Your task to perform on an android device: Clear the shopping cart on target. Add "razer kraken" to the cart on target, then select checkout. Image 0: 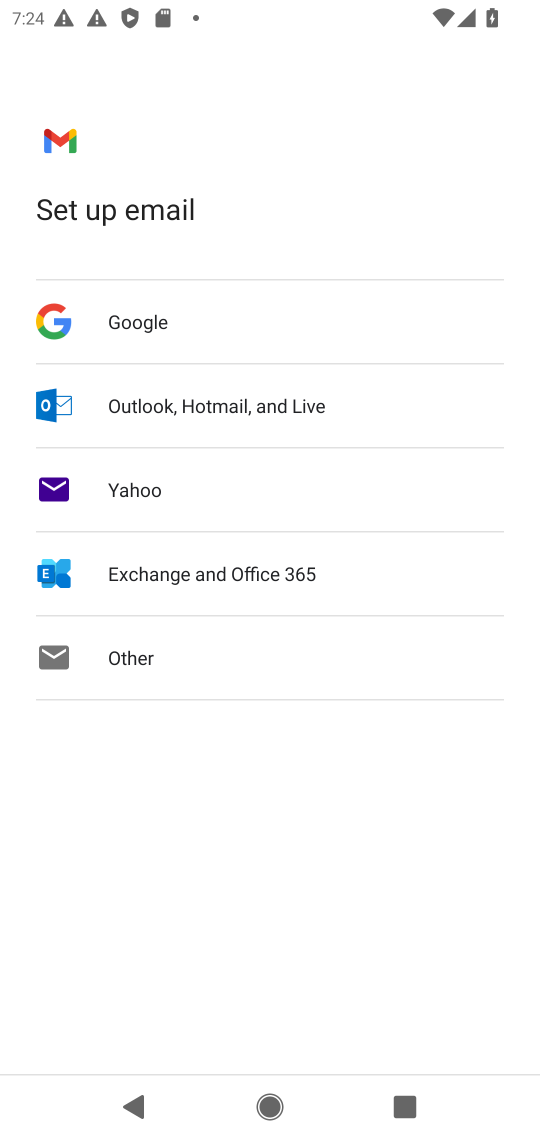
Step 0: press home button
Your task to perform on an android device: Clear the shopping cart on target. Add "razer kraken" to the cart on target, then select checkout. Image 1: 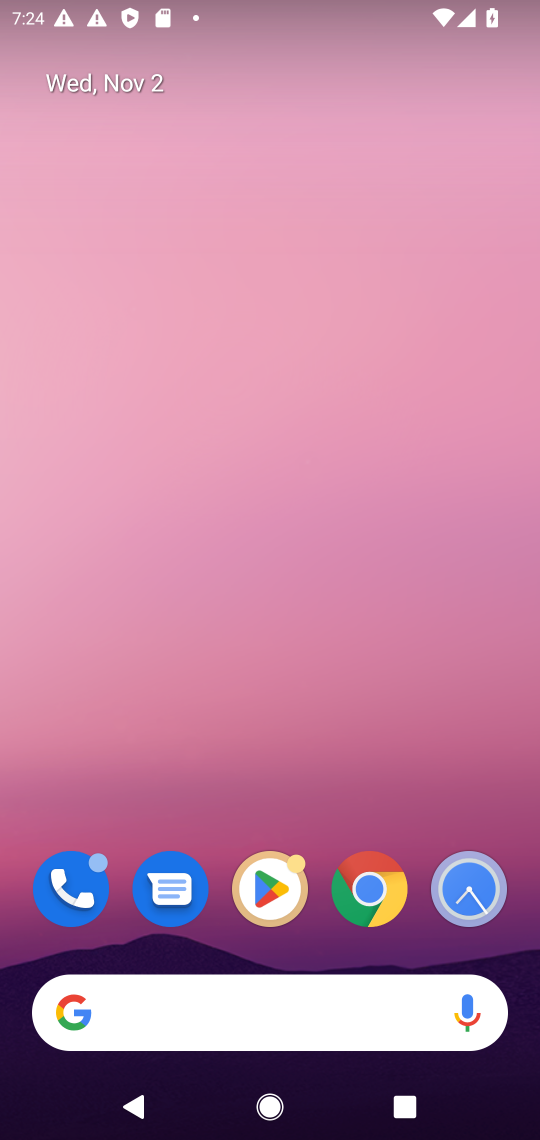
Step 1: drag from (307, 821) to (316, 1)
Your task to perform on an android device: Clear the shopping cart on target. Add "razer kraken" to the cart on target, then select checkout. Image 2: 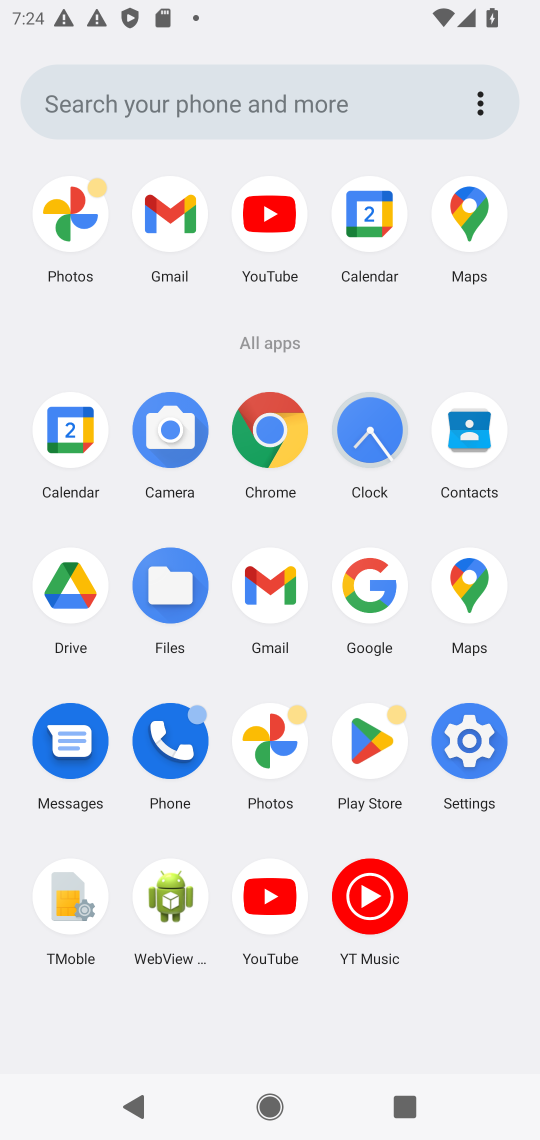
Step 2: click (266, 431)
Your task to perform on an android device: Clear the shopping cart on target. Add "razer kraken" to the cart on target, then select checkout. Image 3: 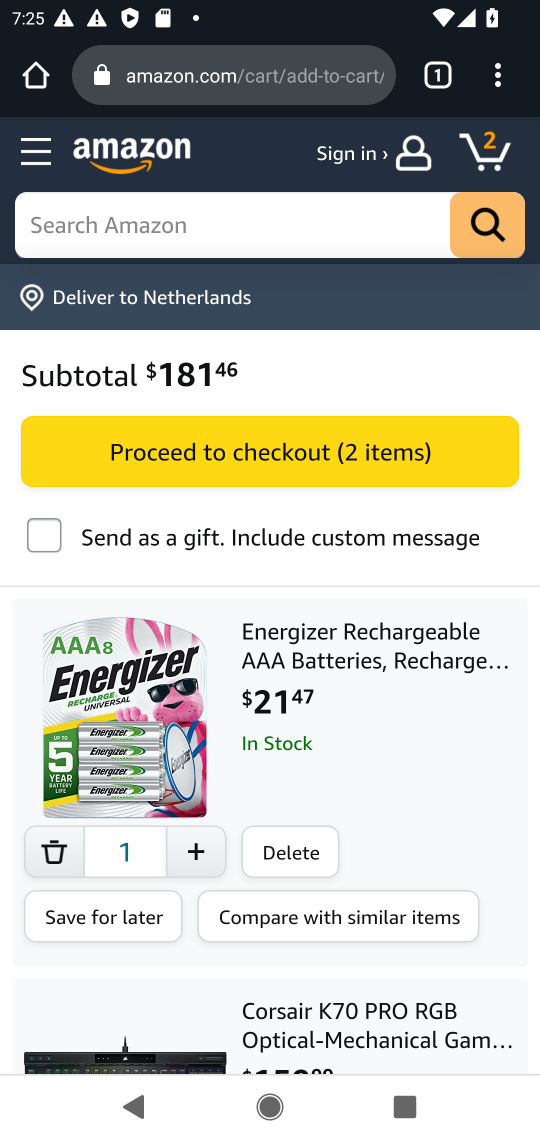
Step 3: click (171, 59)
Your task to perform on an android device: Clear the shopping cart on target. Add "razer kraken" to the cart on target, then select checkout. Image 4: 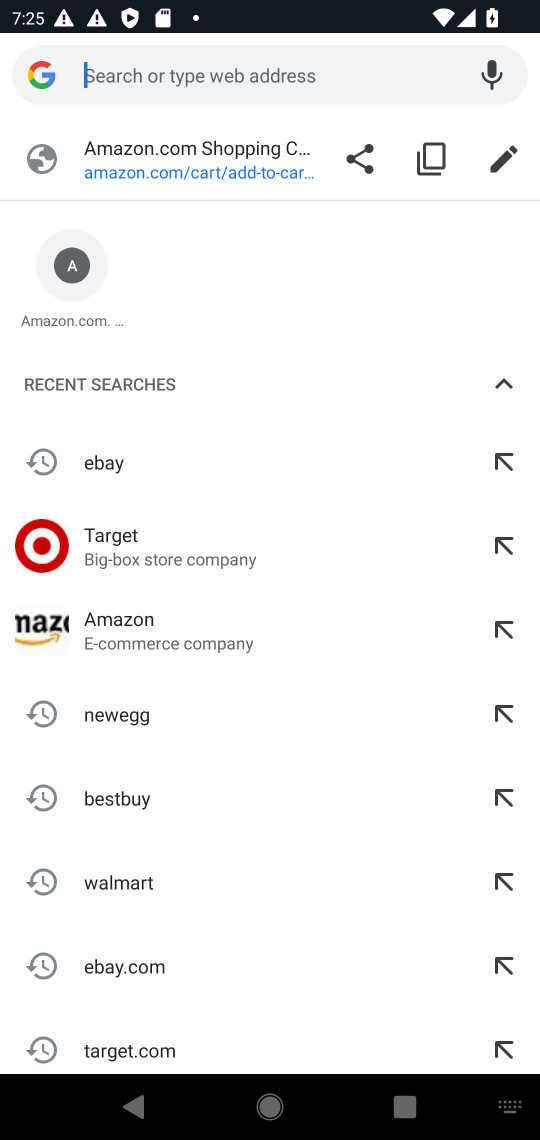
Step 4: type "target"
Your task to perform on an android device: Clear the shopping cart on target. Add "razer kraken" to the cart on target, then select checkout. Image 5: 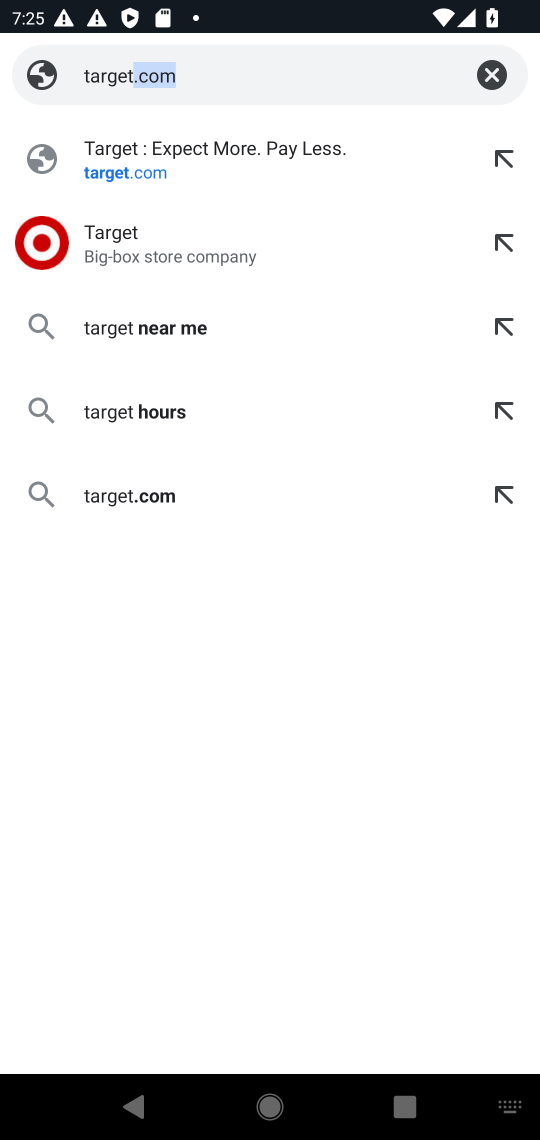
Step 5: click (206, 170)
Your task to perform on an android device: Clear the shopping cart on target. Add "razer kraken" to the cart on target, then select checkout. Image 6: 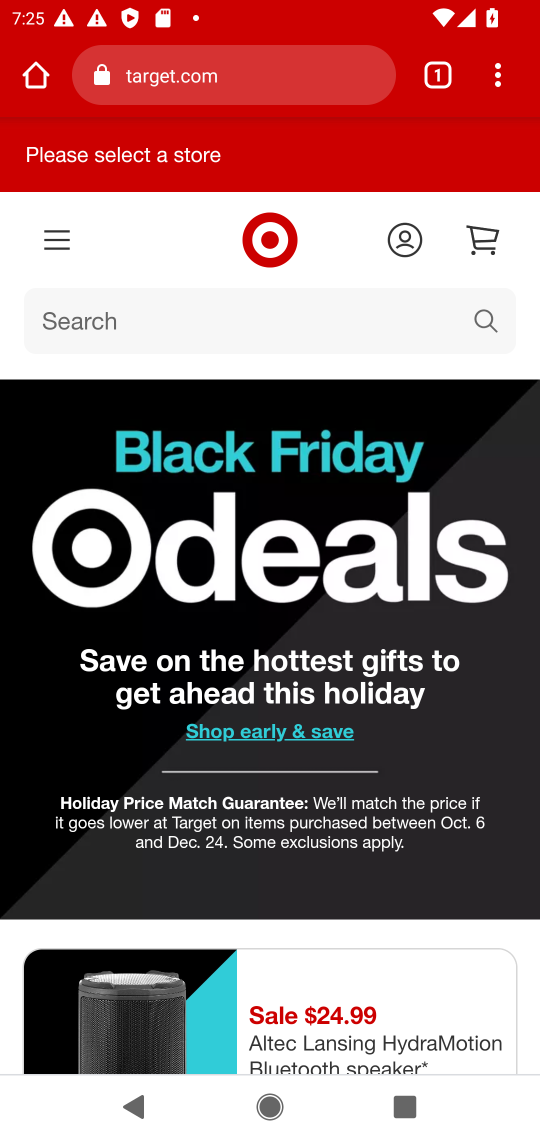
Step 6: click (138, 317)
Your task to perform on an android device: Clear the shopping cart on target. Add "razer kraken" to the cart on target, then select checkout. Image 7: 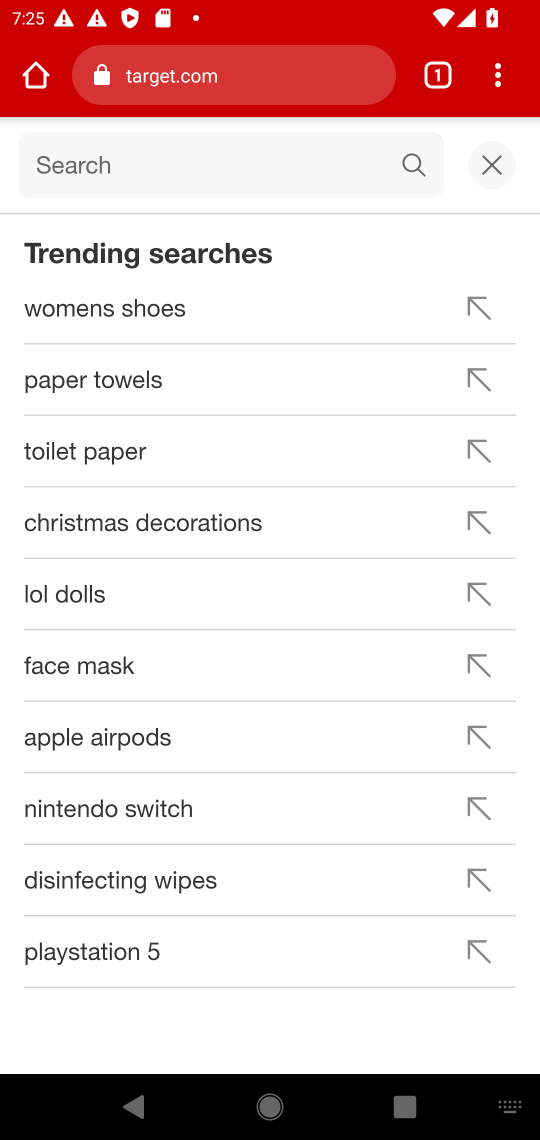
Step 7: type "razer kraken"
Your task to perform on an android device: Clear the shopping cart on target. Add "razer kraken" to the cart on target, then select checkout. Image 8: 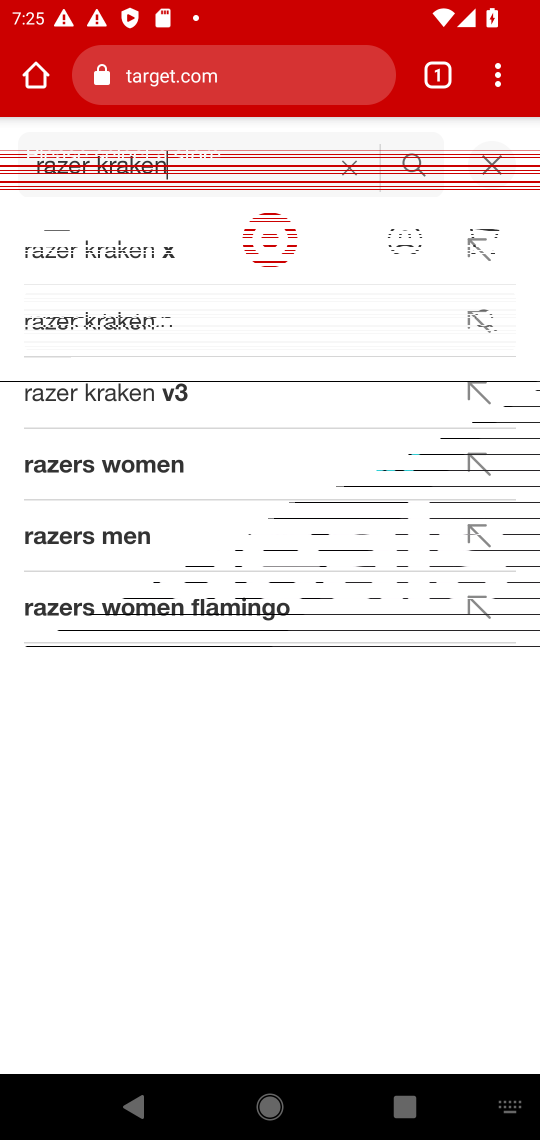
Step 8: click (158, 317)
Your task to perform on an android device: Clear the shopping cart on target. Add "razer kraken" to the cart on target, then select checkout. Image 9: 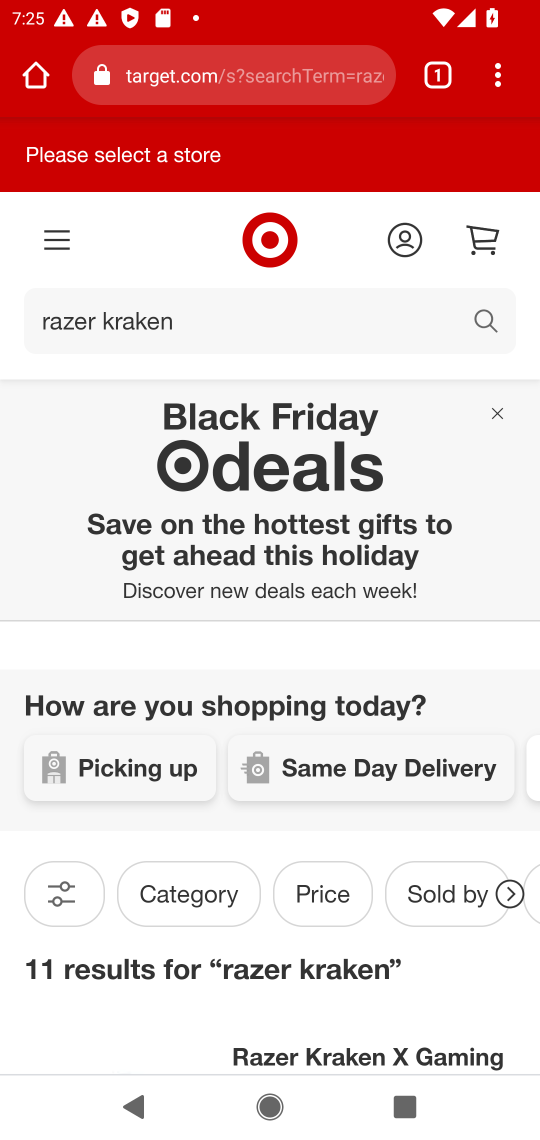
Step 9: drag from (276, 849) to (277, 189)
Your task to perform on an android device: Clear the shopping cart on target. Add "razer kraken" to the cart on target, then select checkout. Image 10: 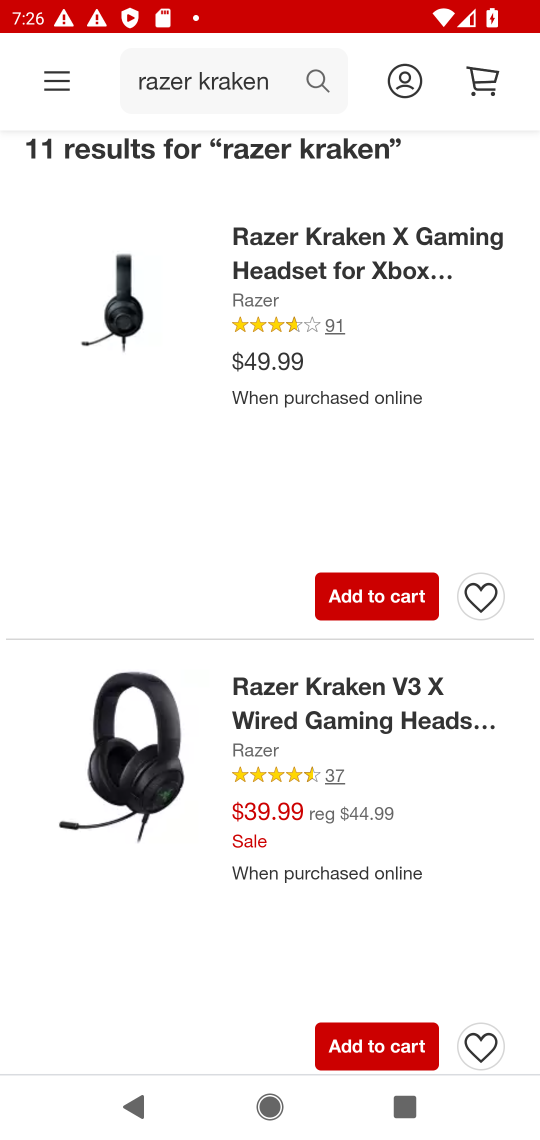
Step 10: click (324, 270)
Your task to perform on an android device: Clear the shopping cart on target. Add "razer kraken" to the cart on target, then select checkout. Image 11: 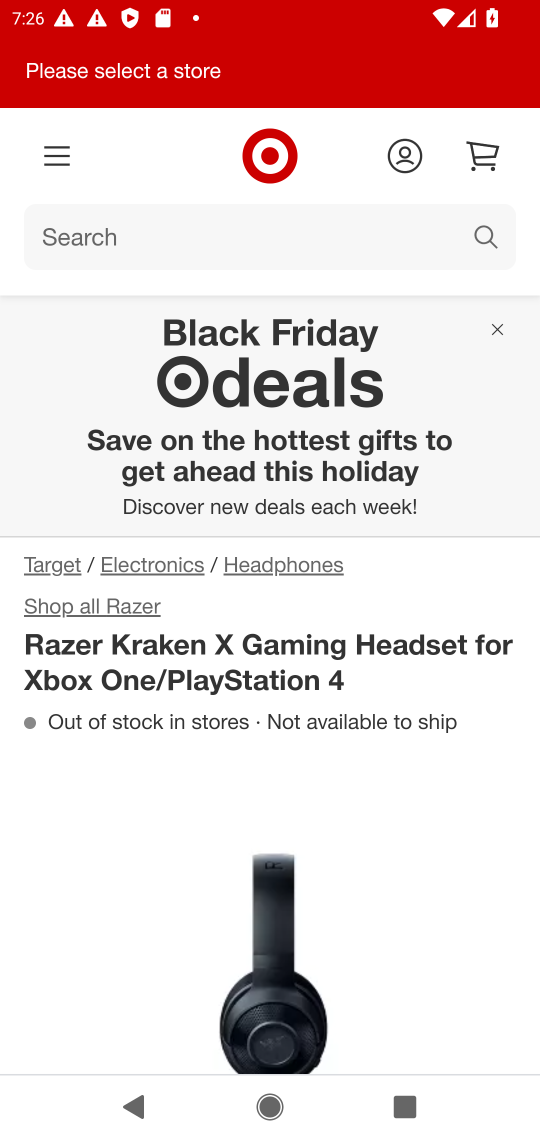
Step 11: drag from (342, 957) to (339, 211)
Your task to perform on an android device: Clear the shopping cart on target. Add "razer kraken" to the cart on target, then select checkout. Image 12: 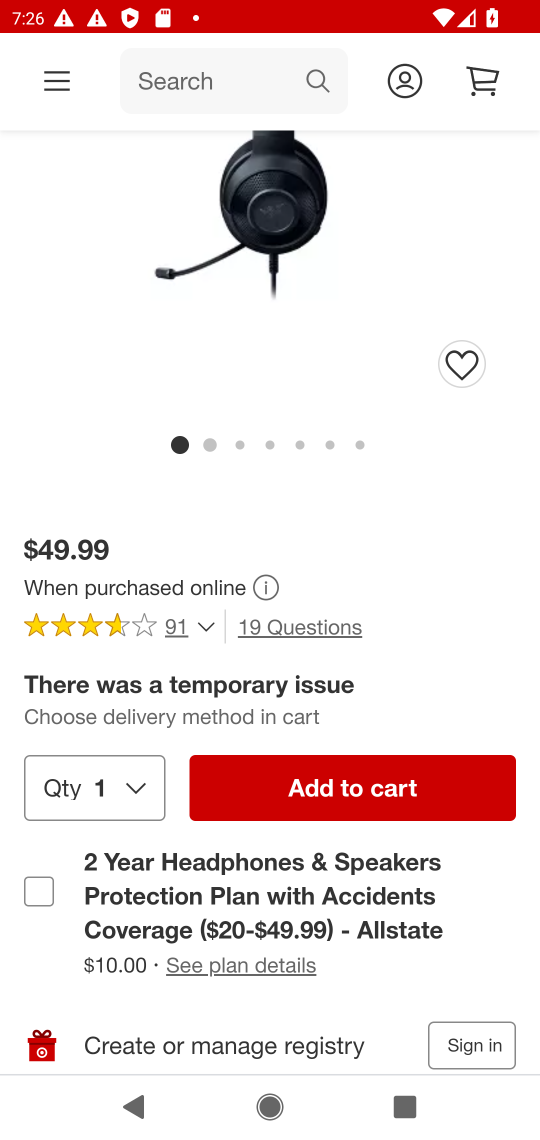
Step 12: click (352, 782)
Your task to perform on an android device: Clear the shopping cart on target. Add "razer kraken" to the cart on target, then select checkout. Image 13: 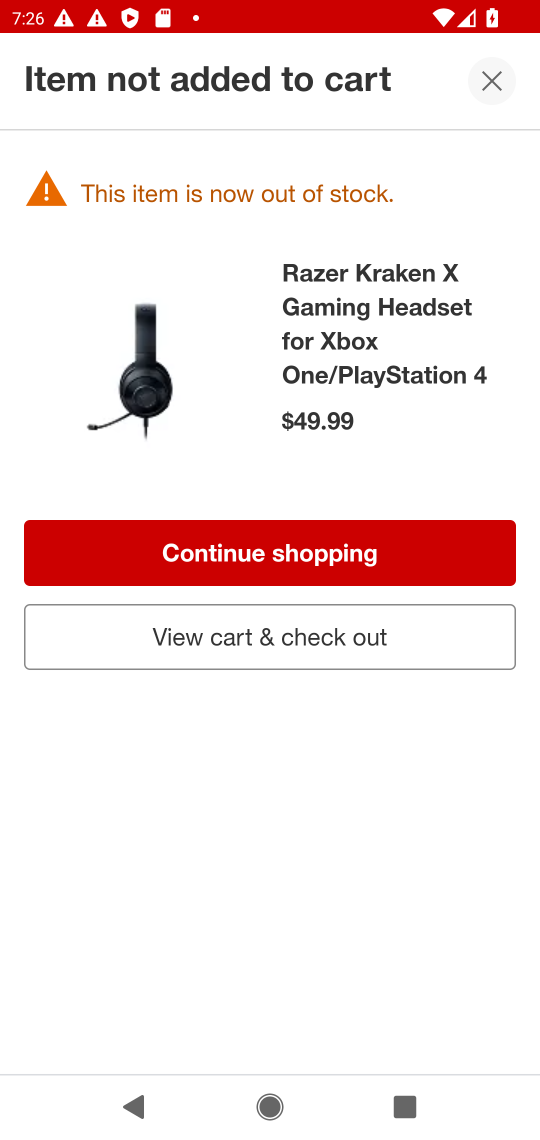
Step 13: click (490, 76)
Your task to perform on an android device: Clear the shopping cart on target. Add "razer kraken" to the cart on target, then select checkout. Image 14: 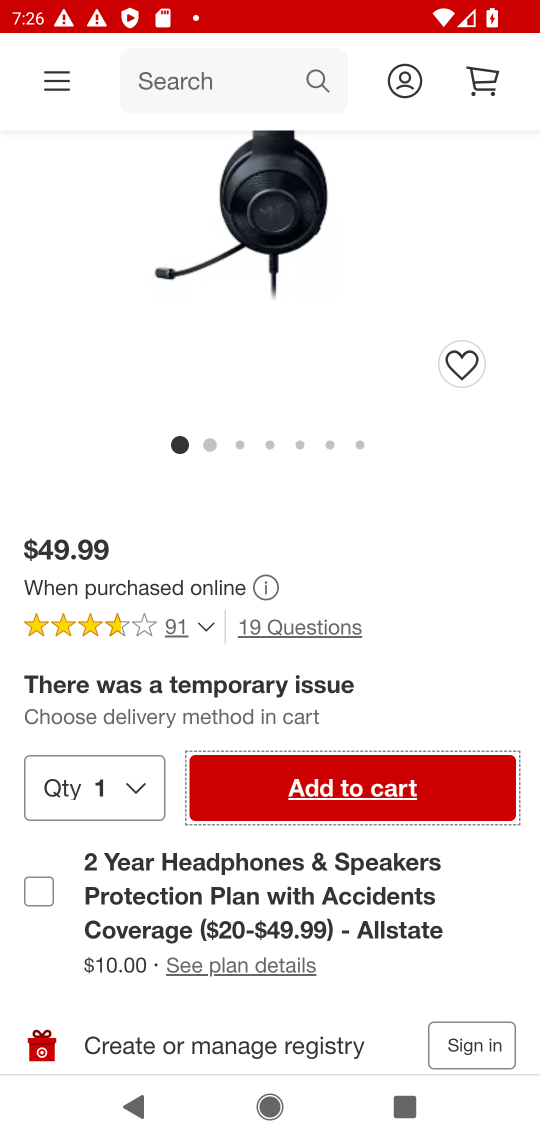
Step 14: drag from (340, 905) to (314, 322)
Your task to perform on an android device: Clear the shopping cart on target. Add "razer kraken" to the cart on target, then select checkout. Image 15: 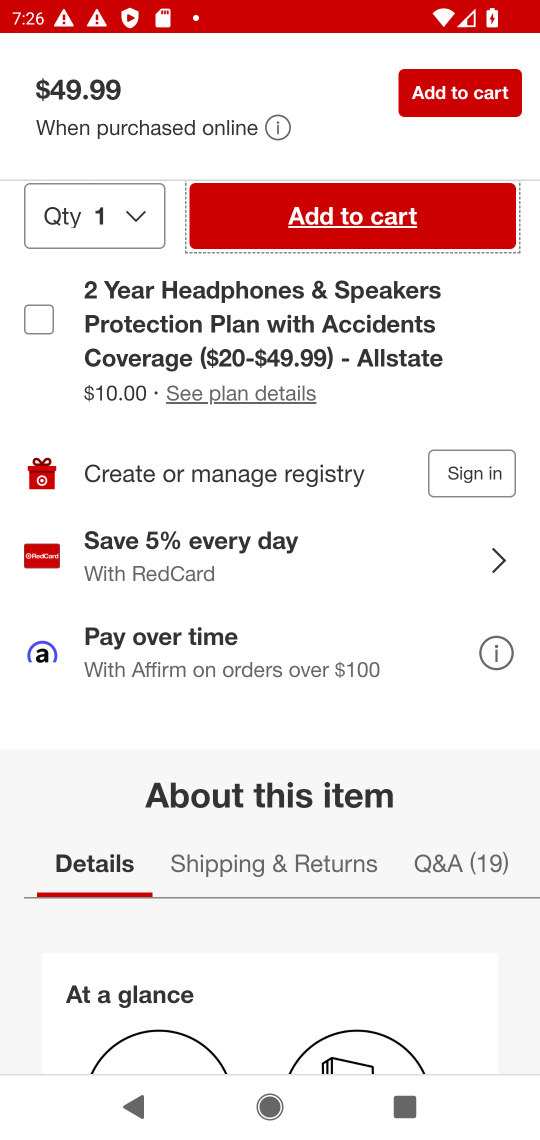
Step 15: drag from (409, 750) to (402, 503)
Your task to perform on an android device: Clear the shopping cart on target. Add "razer kraken" to the cart on target, then select checkout. Image 16: 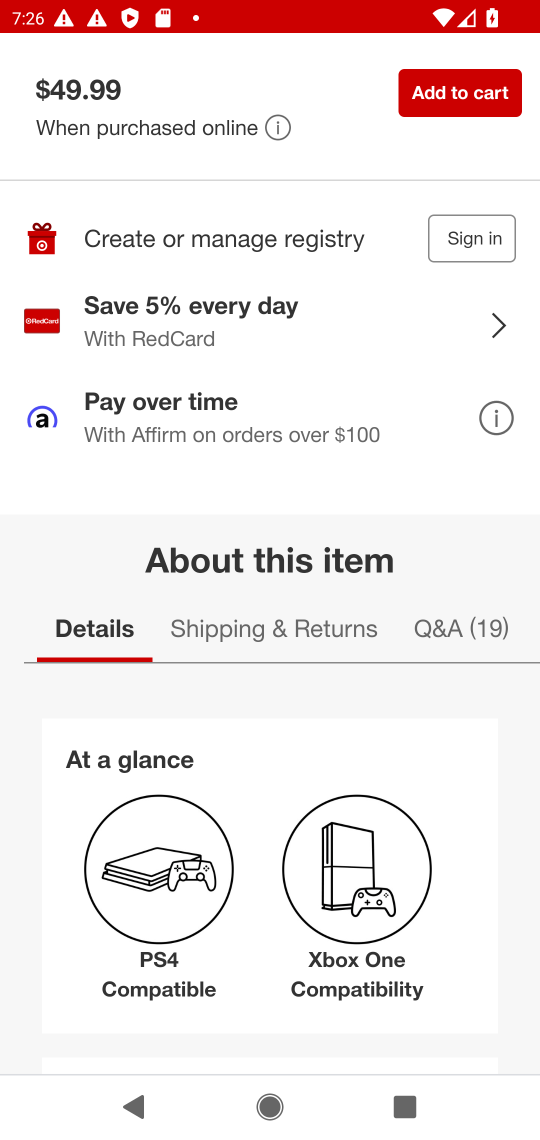
Step 16: click (472, 93)
Your task to perform on an android device: Clear the shopping cart on target. Add "razer kraken" to the cart on target, then select checkout. Image 17: 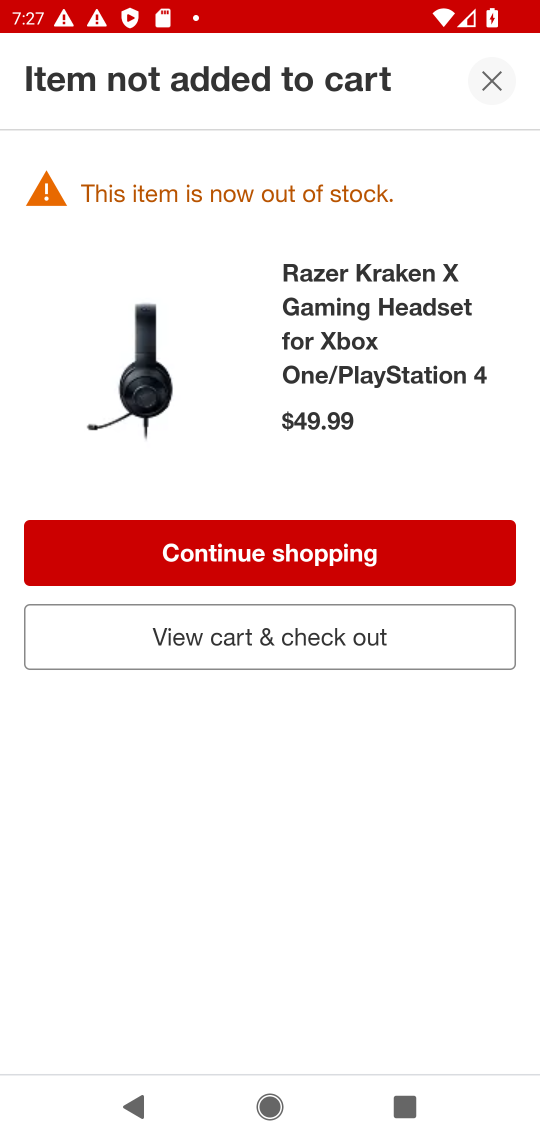
Step 17: task complete